Your task to perform on an android device: Turn on the flashlight Image 0: 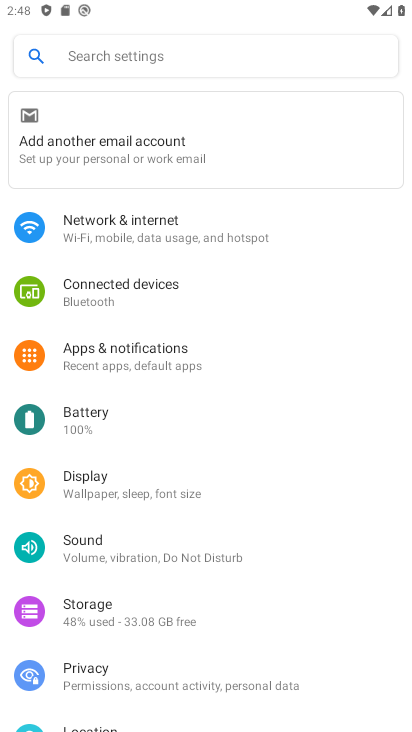
Step 0: click (95, 478)
Your task to perform on an android device: Turn on the flashlight Image 1: 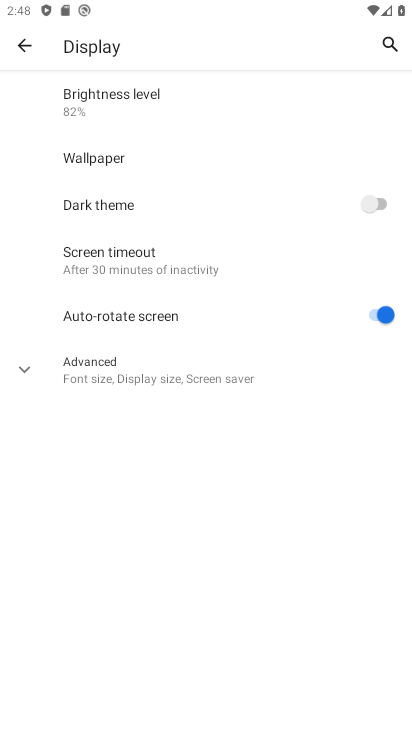
Step 1: task complete